Your task to perform on an android device: Open a new Chrome incognito window Image 0: 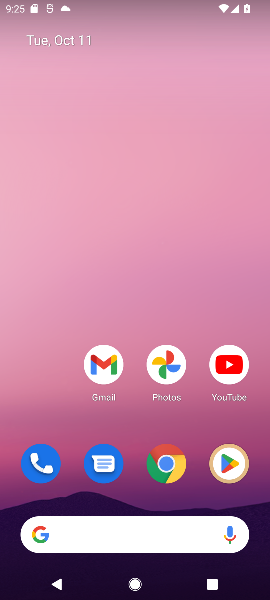
Step 0: drag from (119, 372) to (119, 230)
Your task to perform on an android device: Open a new Chrome incognito window Image 1: 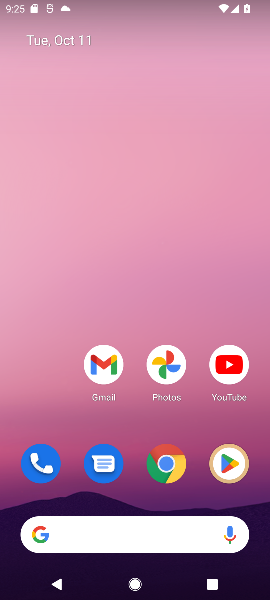
Step 1: click (164, 455)
Your task to perform on an android device: Open a new Chrome incognito window Image 2: 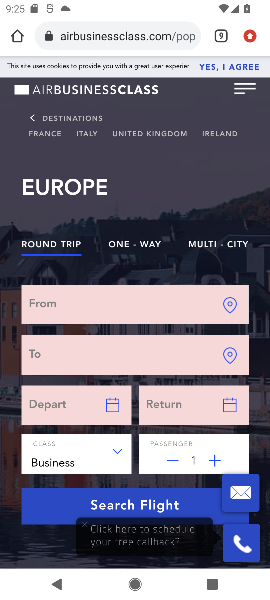
Step 2: click (264, 41)
Your task to perform on an android device: Open a new Chrome incognito window Image 3: 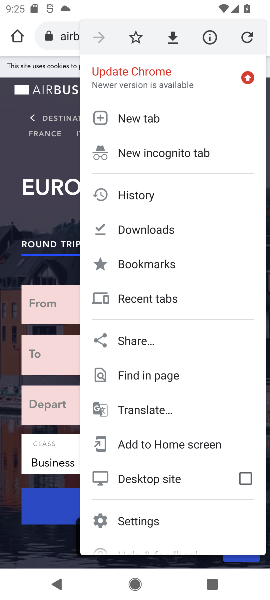
Step 3: click (160, 145)
Your task to perform on an android device: Open a new Chrome incognito window Image 4: 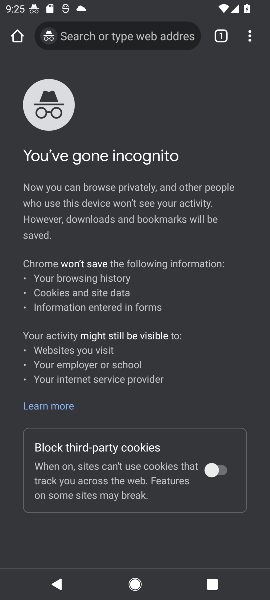
Step 4: task complete